Your task to perform on an android device: turn on sleep mode Image 0: 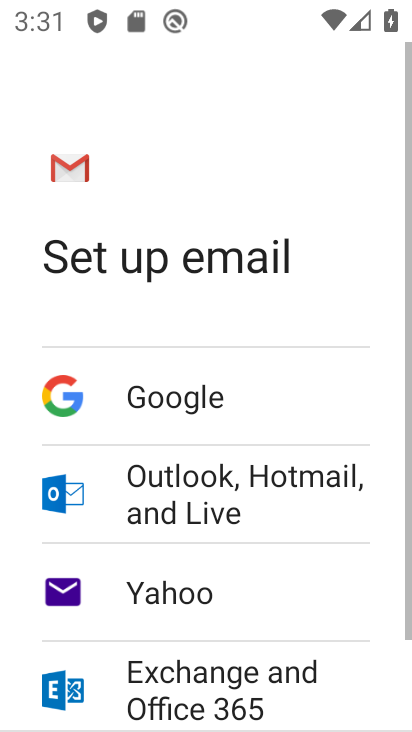
Step 0: press home button
Your task to perform on an android device: turn on sleep mode Image 1: 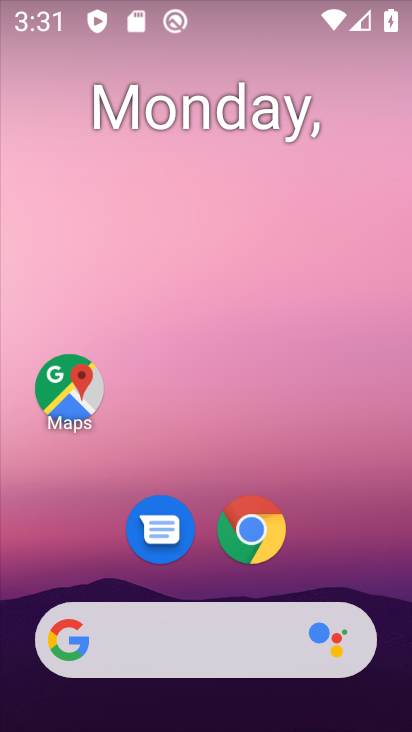
Step 1: drag from (226, 465) to (356, 55)
Your task to perform on an android device: turn on sleep mode Image 2: 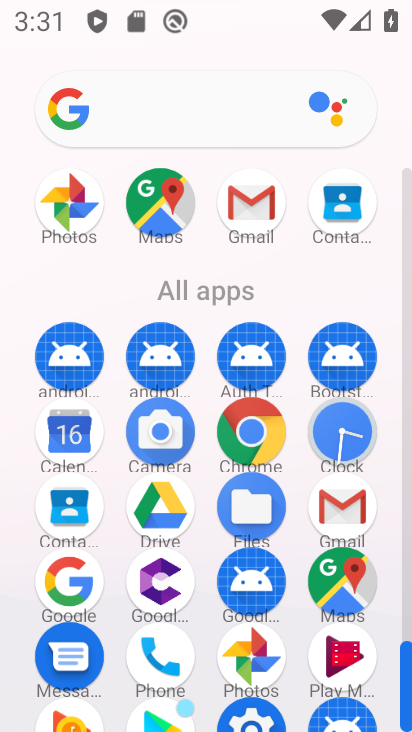
Step 2: drag from (204, 544) to (224, 237)
Your task to perform on an android device: turn on sleep mode Image 3: 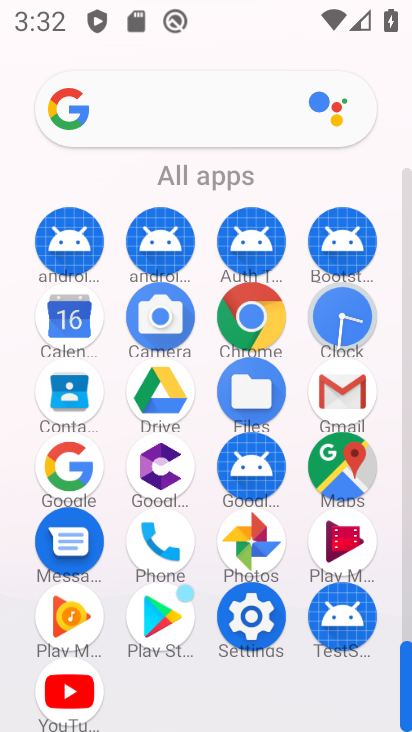
Step 3: click (254, 634)
Your task to perform on an android device: turn on sleep mode Image 4: 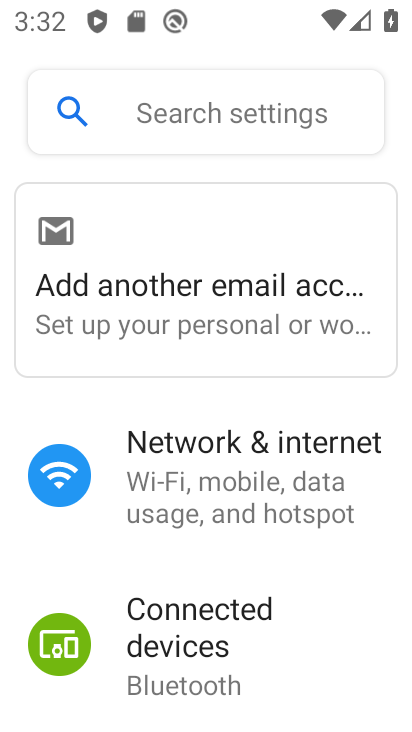
Step 4: click (177, 115)
Your task to perform on an android device: turn on sleep mode Image 5: 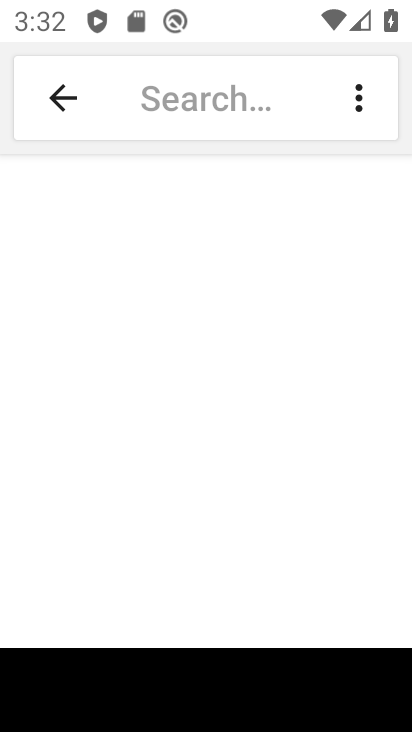
Step 5: type "sleep mode"
Your task to perform on an android device: turn on sleep mode Image 6: 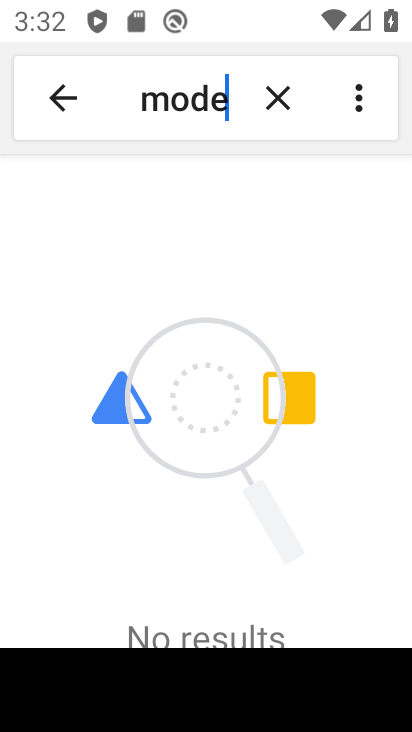
Step 6: task complete